Your task to perform on an android device: Open Google Chrome and click the shortcut for Amazon.com Image 0: 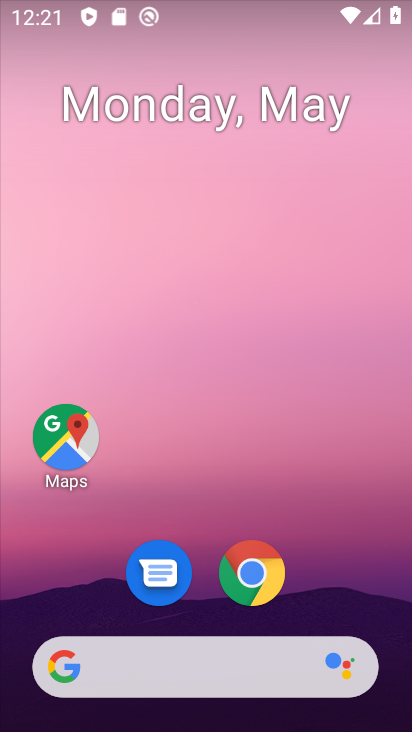
Step 0: click (247, 579)
Your task to perform on an android device: Open Google Chrome and click the shortcut for Amazon.com Image 1: 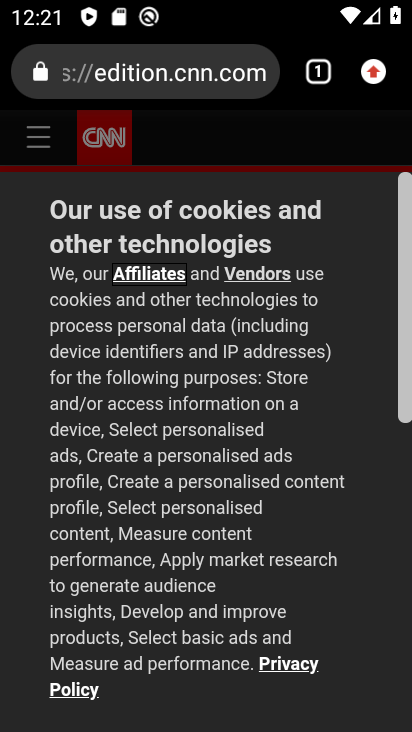
Step 1: click (369, 81)
Your task to perform on an android device: Open Google Chrome and click the shortcut for Amazon.com Image 2: 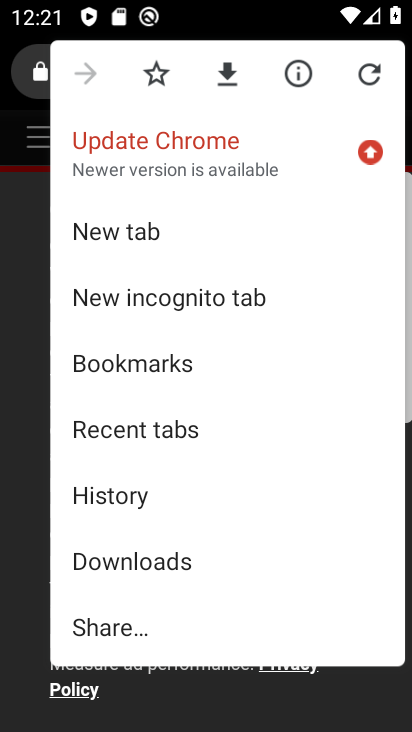
Step 2: click (37, 259)
Your task to perform on an android device: Open Google Chrome and click the shortcut for Amazon.com Image 3: 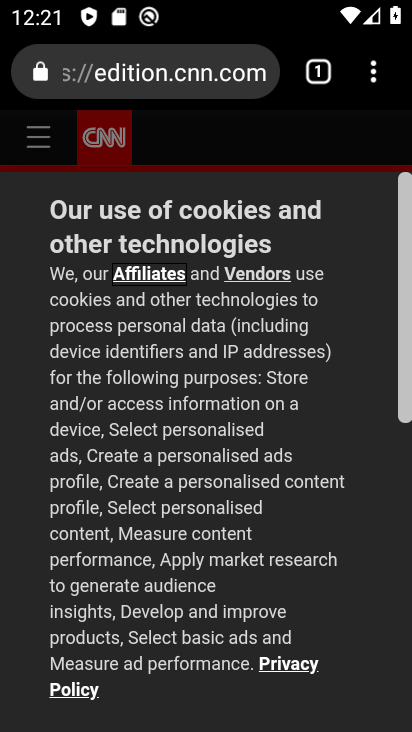
Step 3: click (304, 73)
Your task to perform on an android device: Open Google Chrome and click the shortcut for Amazon.com Image 4: 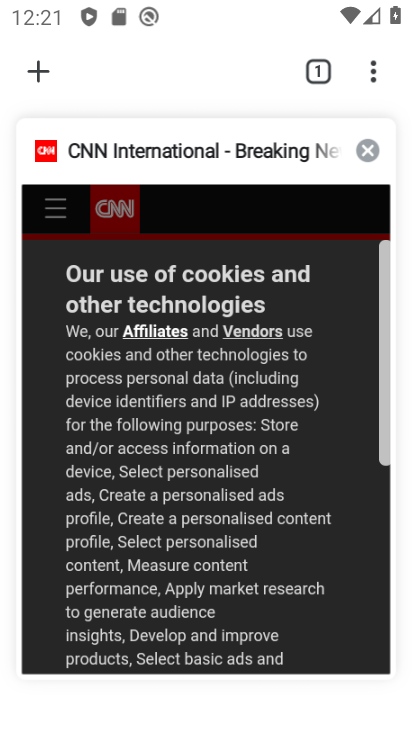
Step 4: click (28, 83)
Your task to perform on an android device: Open Google Chrome and click the shortcut for Amazon.com Image 5: 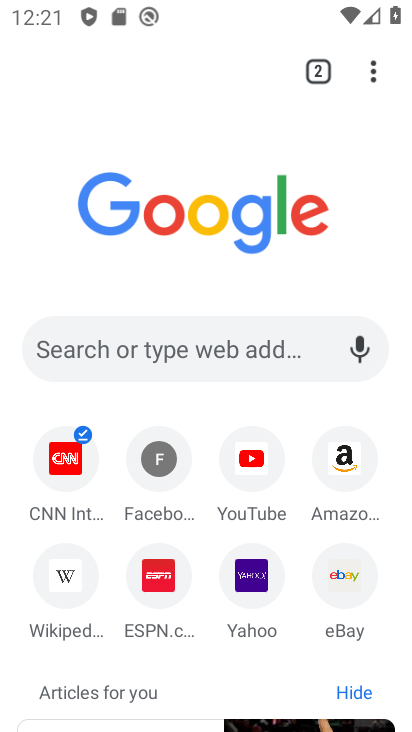
Step 5: click (353, 446)
Your task to perform on an android device: Open Google Chrome and click the shortcut for Amazon.com Image 6: 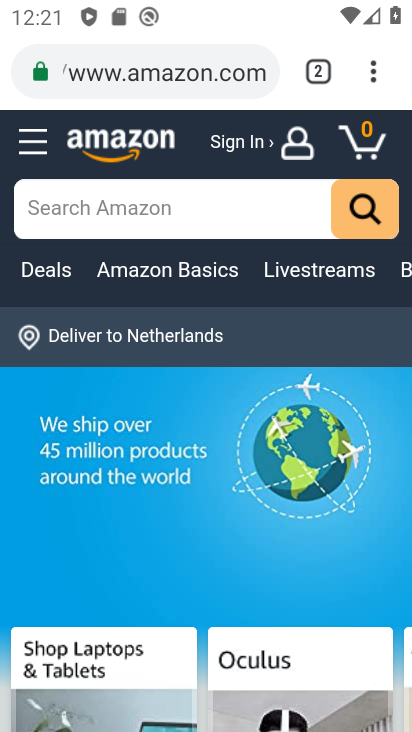
Step 6: task complete